Your task to perform on an android device: Open the calendar and show me this week's events Image 0: 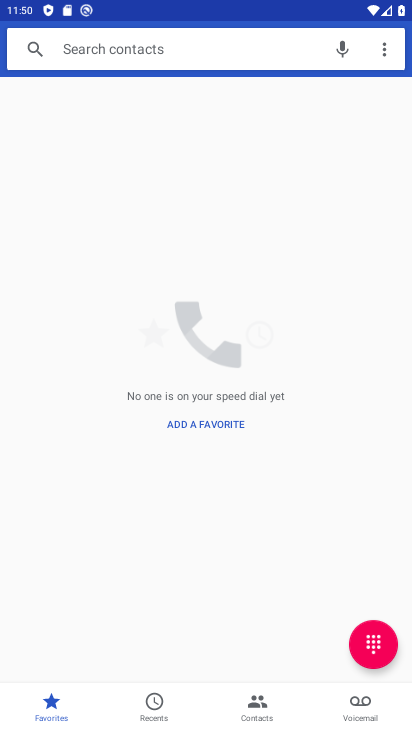
Step 0: press home button
Your task to perform on an android device: Open the calendar and show me this week's events Image 1: 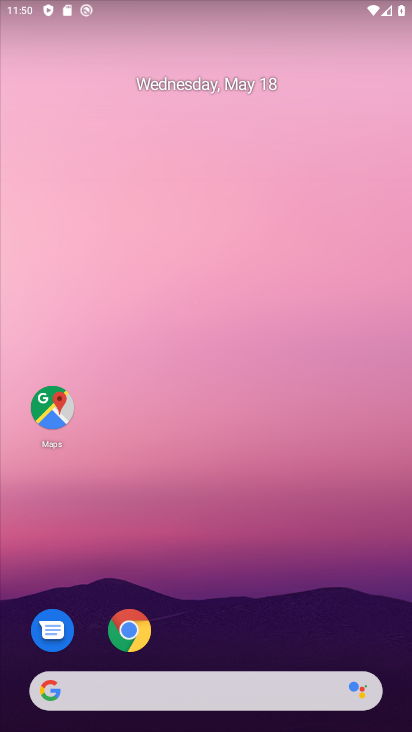
Step 1: drag from (193, 647) to (244, 71)
Your task to perform on an android device: Open the calendar and show me this week's events Image 2: 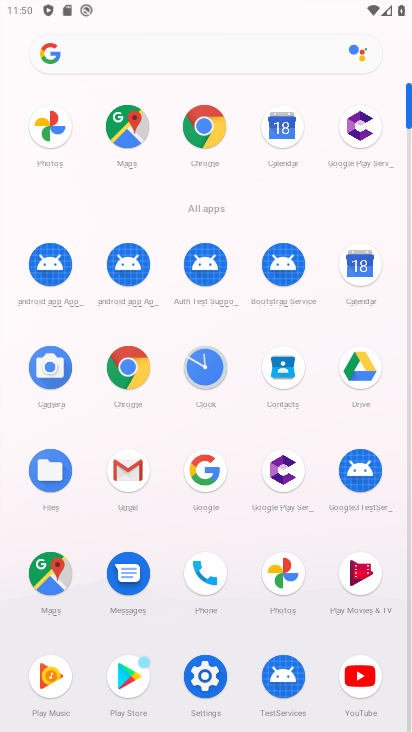
Step 2: click (360, 262)
Your task to perform on an android device: Open the calendar and show me this week's events Image 3: 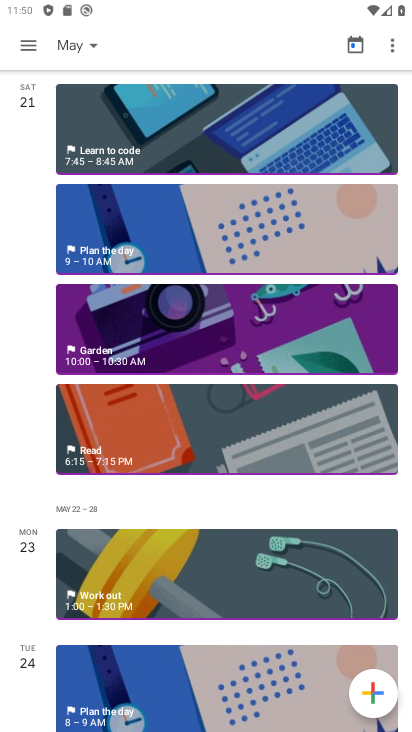
Step 3: click (64, 47)
Your task to perform on an android device: Open the calendar and show me this week's events Image 4: 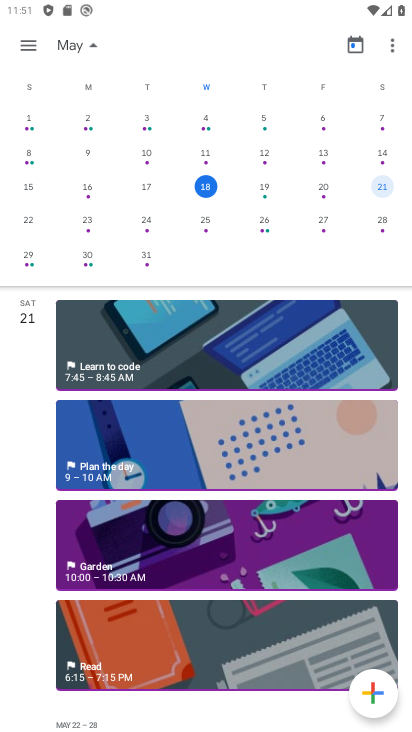
Step 4: click (322, 186)
Your task to perform on an android device: Open the calendar and show me this week's events Image 5: 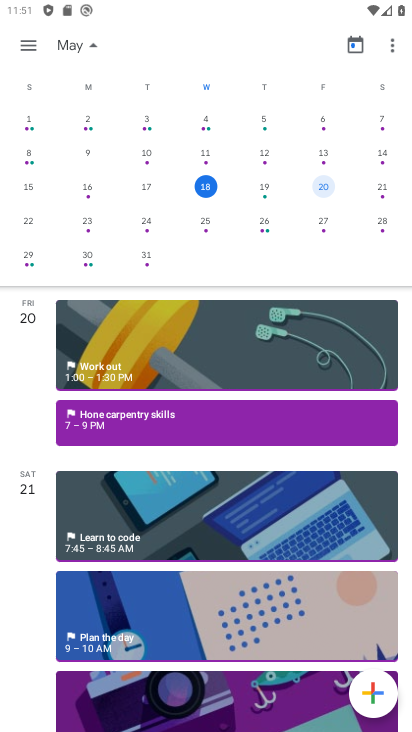
Step 5: task complete